Your task to perform on an android device: toggle data saver in the chrome app Image 0: 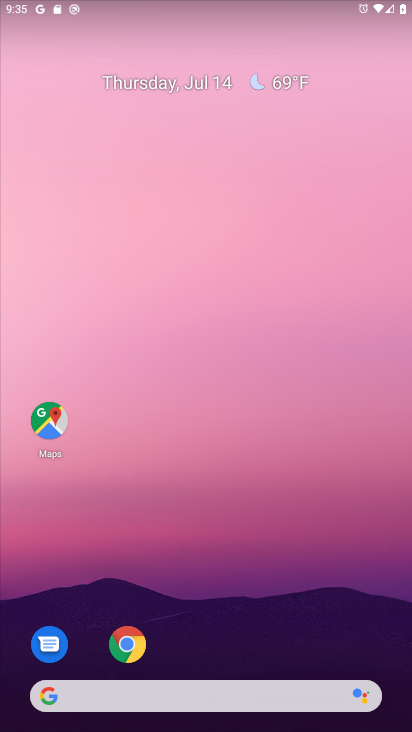
Step 0: click (128, 641)
Your task to perform on an android device: toggle data saver in the chrome app Image 1: 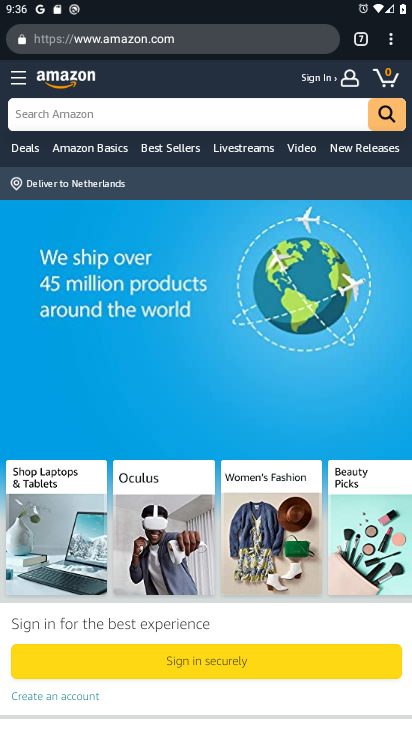
Step 1: click (404, 45)
Your task to perform on an android device: toggle data saver in the chrome app Image 2: 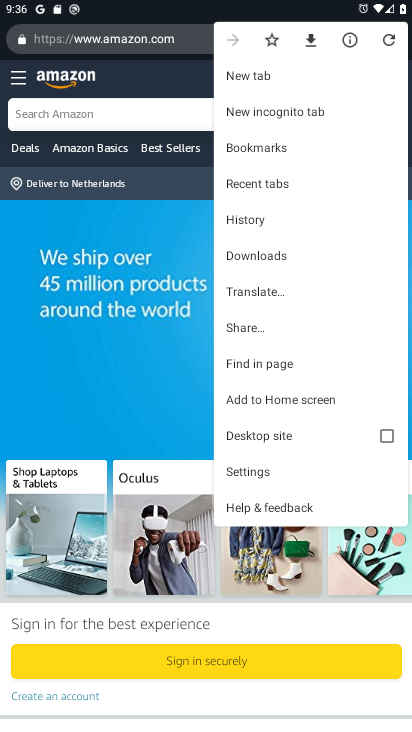
Step 2: click (262, 468)
Your task to perform on an android device: toggle data saver in the chrome app Image 3: 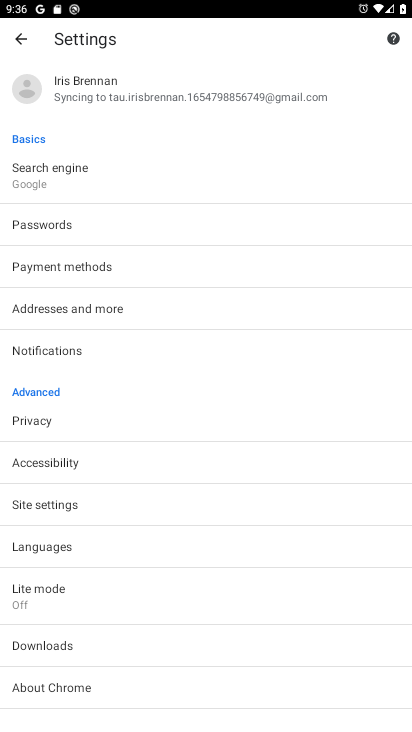
Step 3: click (92, 607)
Your task to perform on an android device: toggle data saver in the chrome app Image 4: 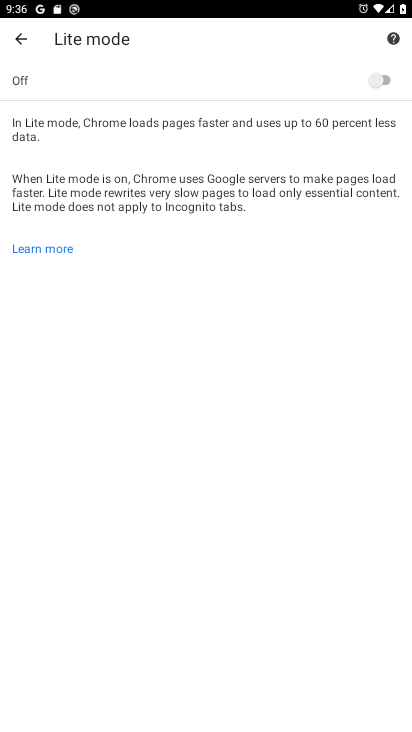
Step 4: click (389, 73)
Your task to perform on an android device: toggle data saver in the chrome app Image 5: 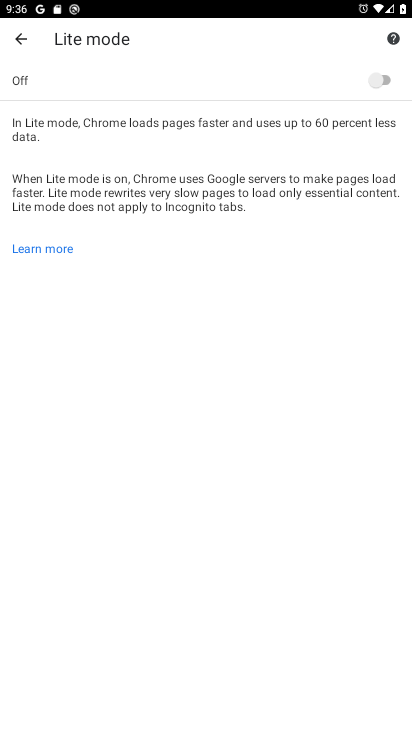
Step 5: click (389, 73)
Your task to perform on an android device: toggle data saver in the chrome app Image 6: 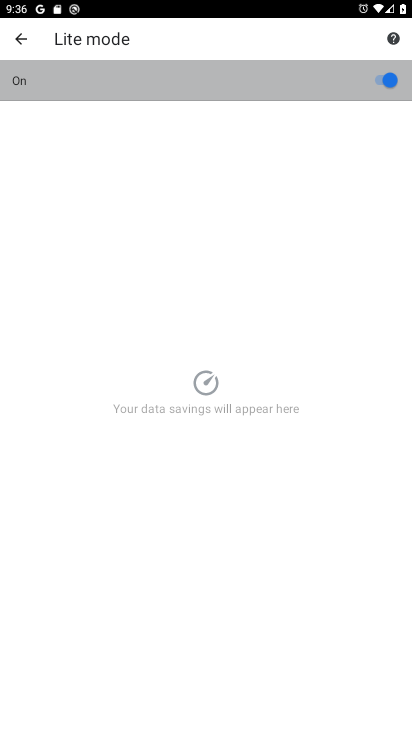
Step 6: click (389, 73)
Your task to perform on an android device: toggle data saver in the chrome app Image 7: 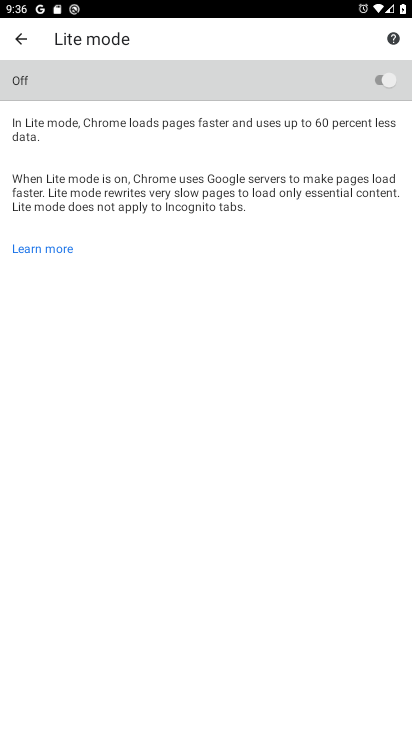
Step 7: click (389, 73)
Your task to perform on an android device: toggle data saver in the chrome app Image 8: 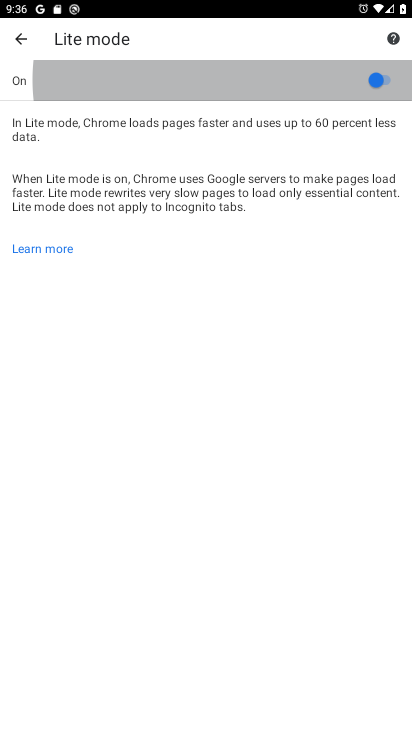
Step 8: click (389, 73)
Your task to perform on an android device: toggle data saver in the chrome app Image 9: 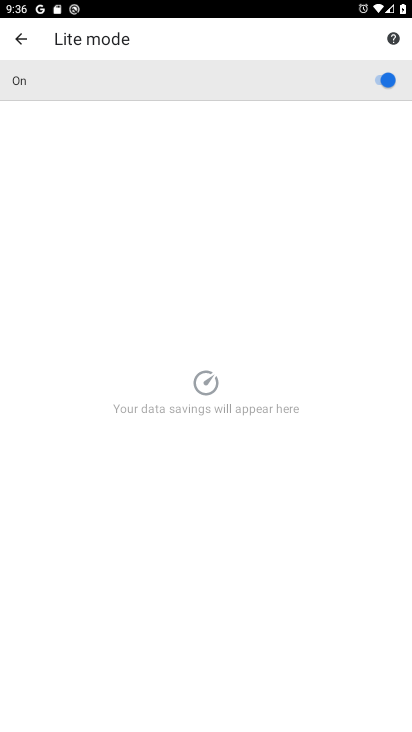
Step 9: click (389, 73)
Your task to perform on an android device: toggle data saver in the chrome app Image 10: 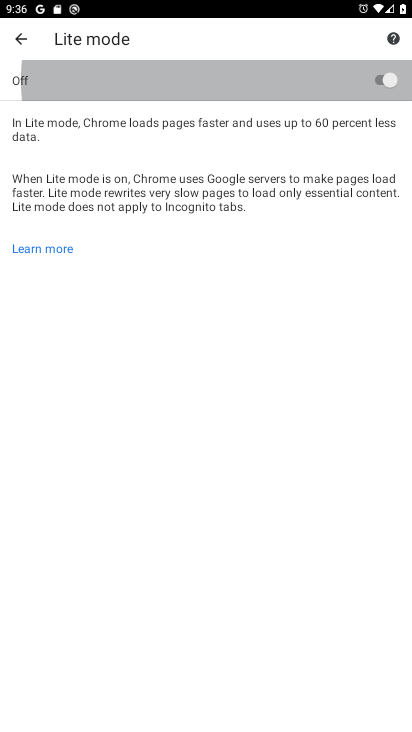
Step 10: click (389, 73)
Your task to perform on an android device: toggle data saver in the chrome app Image 11: 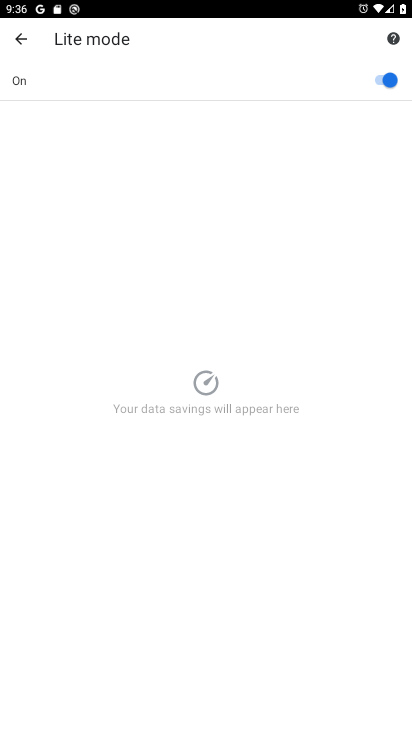
Step 11: task complete